Your task to perform on an android device: Show me popular videos on Youtube Image 0: 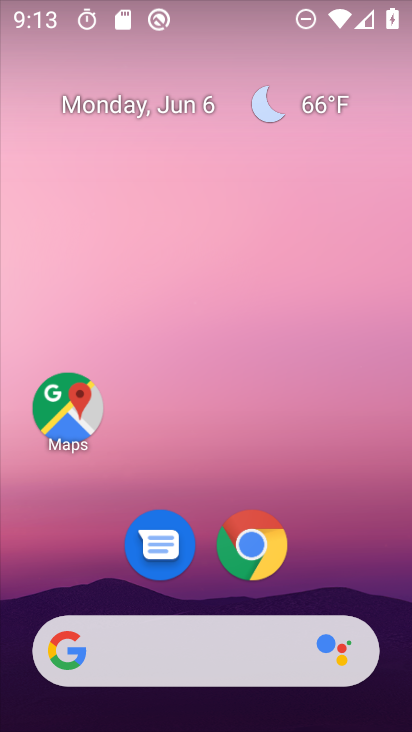
Step 0: drag from (208, 503) to (315, 29)
Your task to perform on an android device: Show me popular videos on Youtube Image 1: 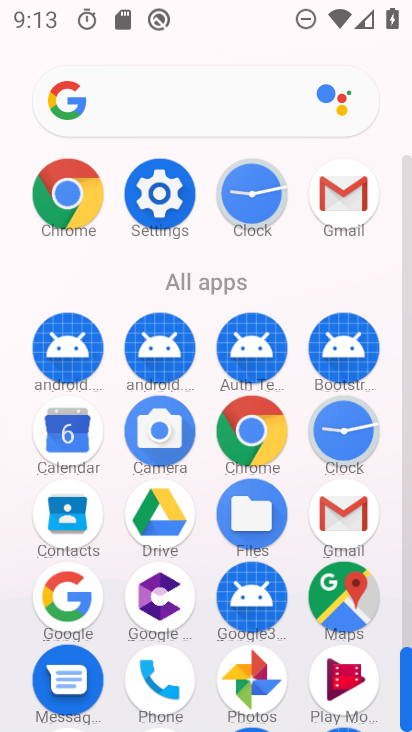
Step 1: drag from (181, 618) to (245, 127)
Your task to perform on an android device: Show me popular videos on Youtube Image 2: 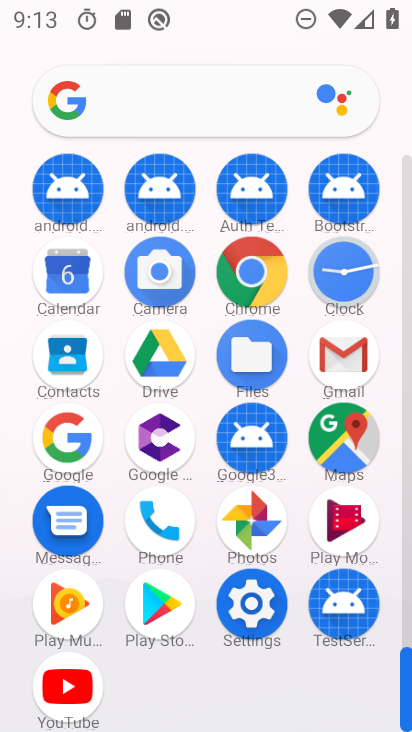
Step 2: click (63, 696)
Your task to perform on an android device: Show me popular videos on Youtube Image 3: 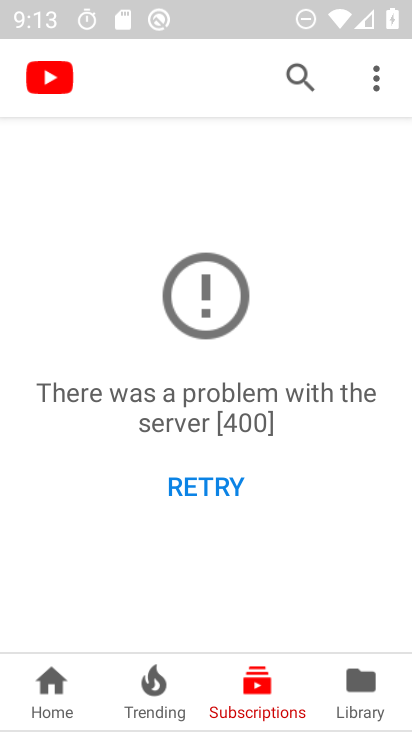
Step 3: click (202, 488)
Your task to perform on an android device: Show me popular videos on Youtube Image 4: 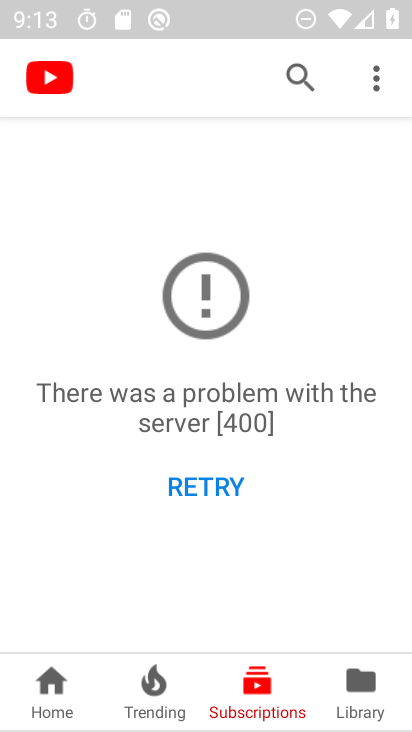
Step 4: click (55, 692)
Your task to perform on an android device: Show me popular videos on Youtube Image 5: 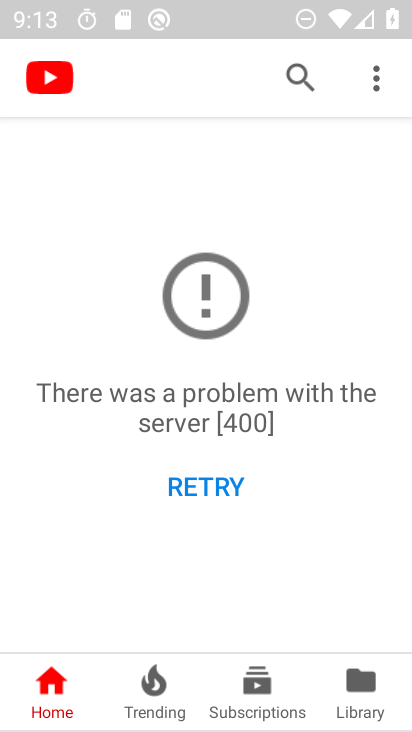
Step 5: click (191, 489)
Your task to perform on an android device: Show me popular videos on Youtube Image 6: 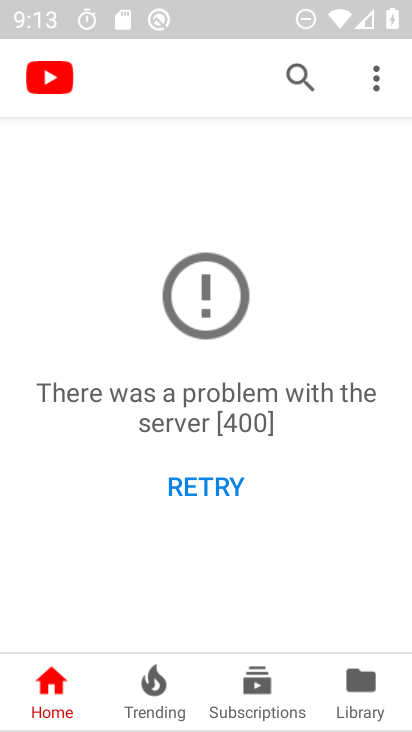
Step 6: task complete